Your task to perform on an android device: Open my contact list Image 0: 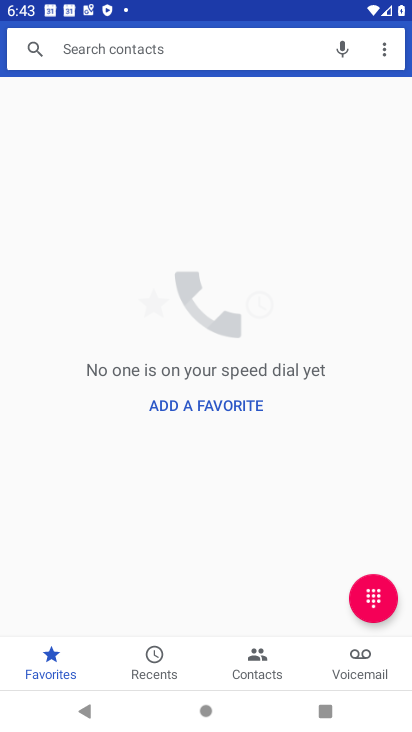
Step 0: press home button
Your task to perform on an android device: Open my contact list Image 1: 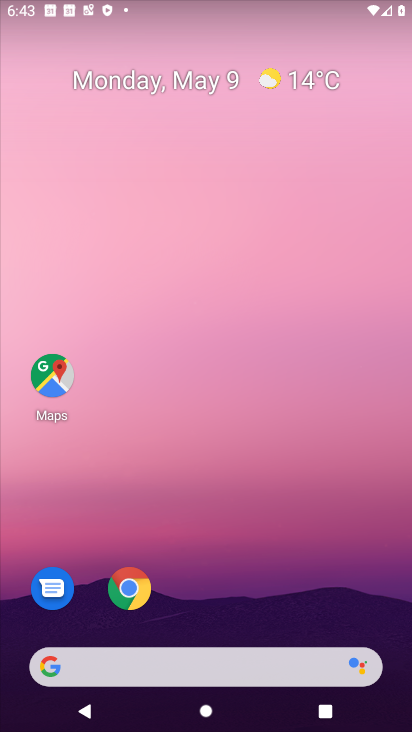
Step 1: drag from (352, 629) to (245, 21)
Your task to perform on an android device: Open my contact list Image 2: 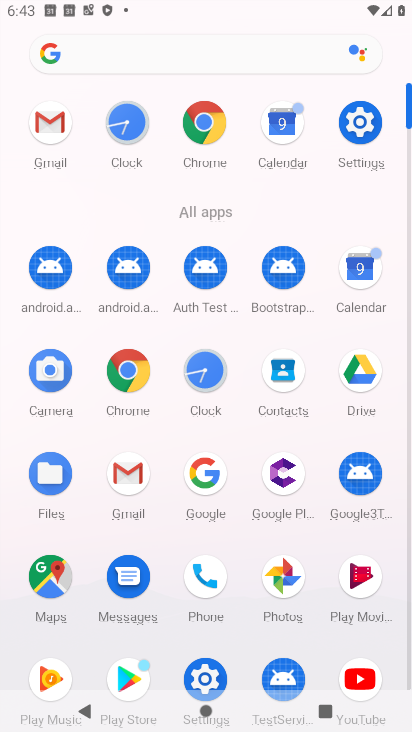
Step 2: click (277, 361)
Your task to perform on an android device: Open my contact list Image 3: 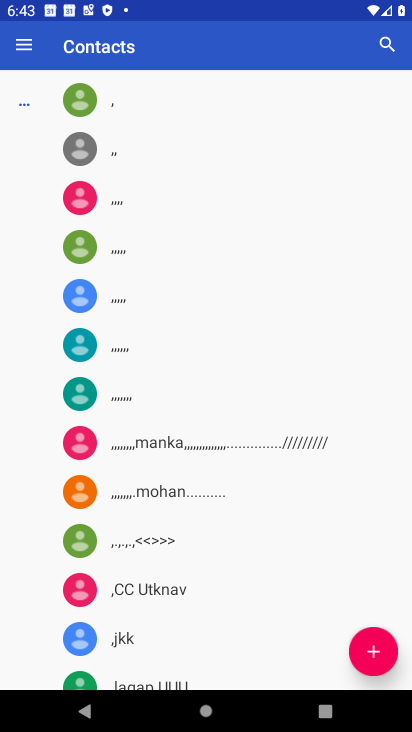
Step 3: task complete